Your task to perform on an android device: toggle data saver in the chrome app Image 0: 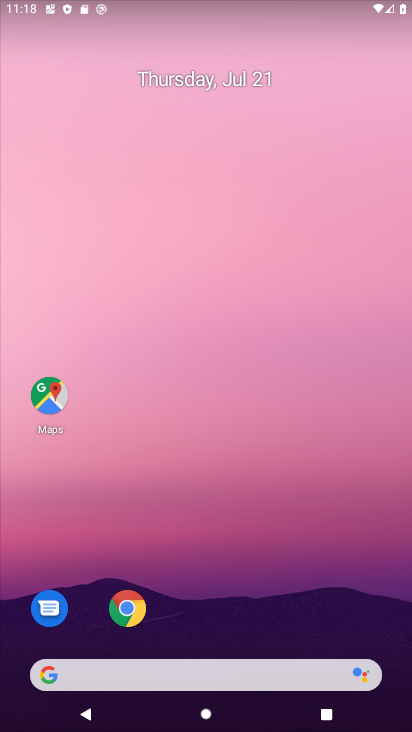
Step 0: drag from (221, 643) to (197, 0)
Your task to perform on an android device: toggle data saver in the chrome app Image 1: 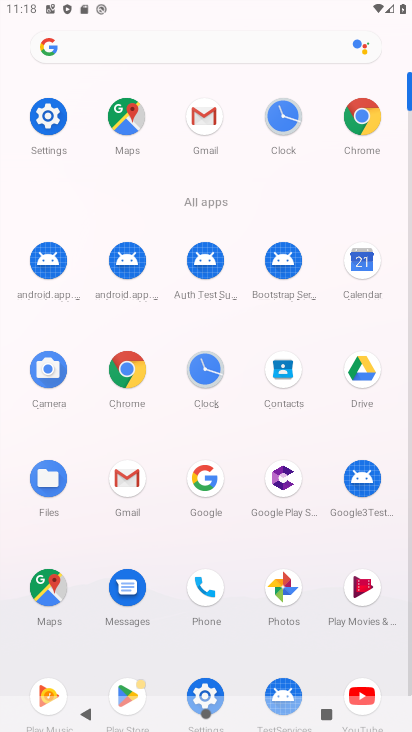
Step 1: click (134, 366)
Your task to perform on an android device: toggle data saver in the chrome app Image 2: 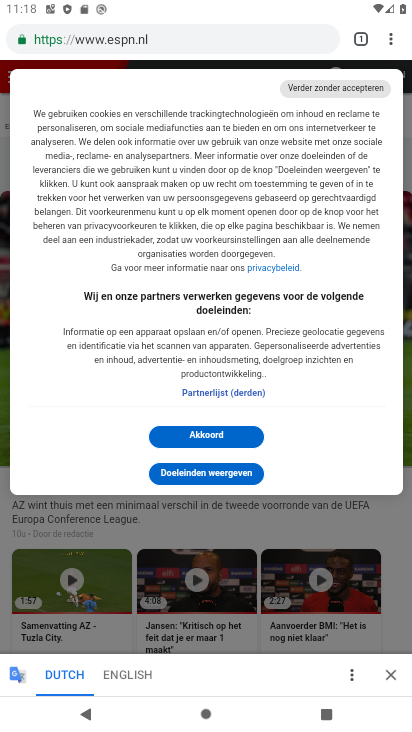
Step 2: click (391, 37)
Your task to perform on an android device: toggle data saver in the chrome app Image 3: 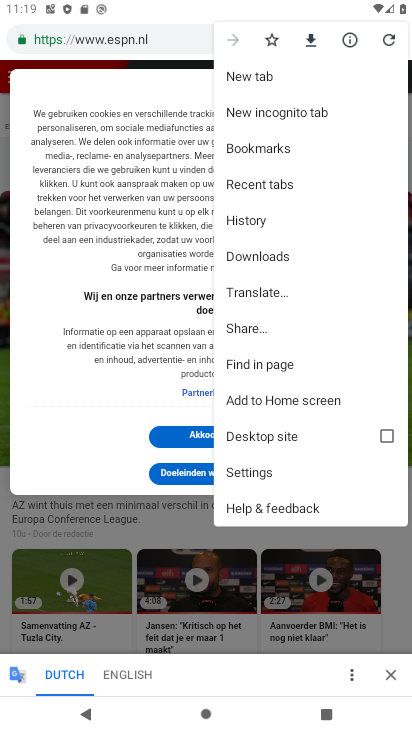
Step 3: click (245, 467)
Your task to perform on an android device: toggle data saver in the chrome app Image 4: 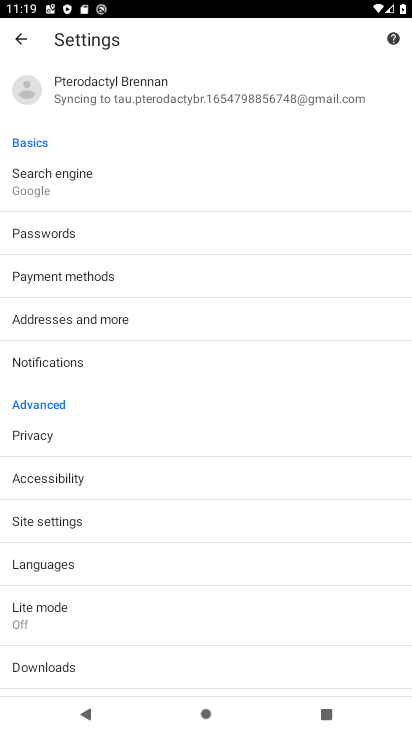
Step 4: click (46, 626)
Your task to perform on an android device: toggle data saver in the chrome app Image 5: 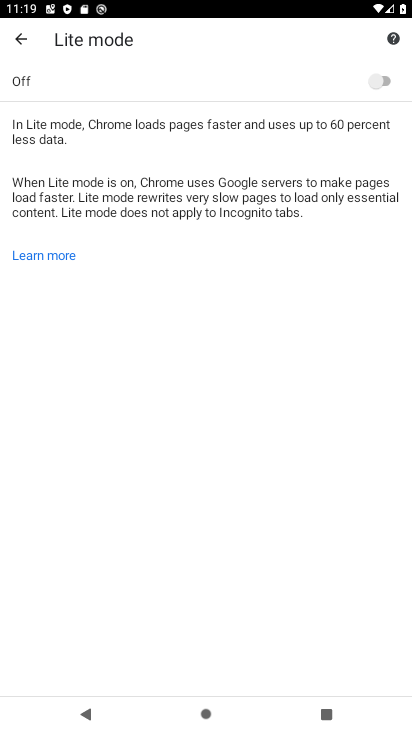
Step 5: click (261, 154)
Your task to perform on an android device: toggle data saver in the chrome app Image 6: 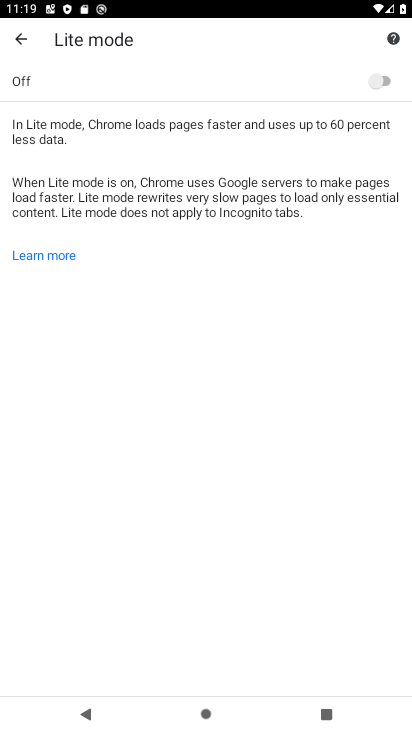
Step 6: click (342, 74)
Your task to perform on an android device: toggle data saver in the chrome app Image 7: 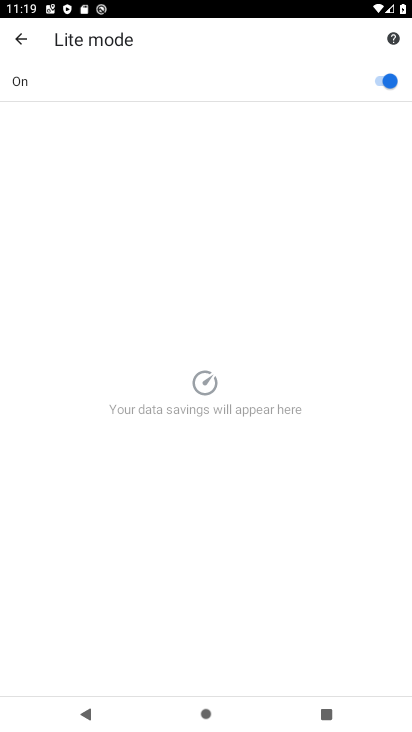
Step 7: task complete